Your task to perform on an android device: Add "alienware area 51" to the cart on newegg.com Image 0: 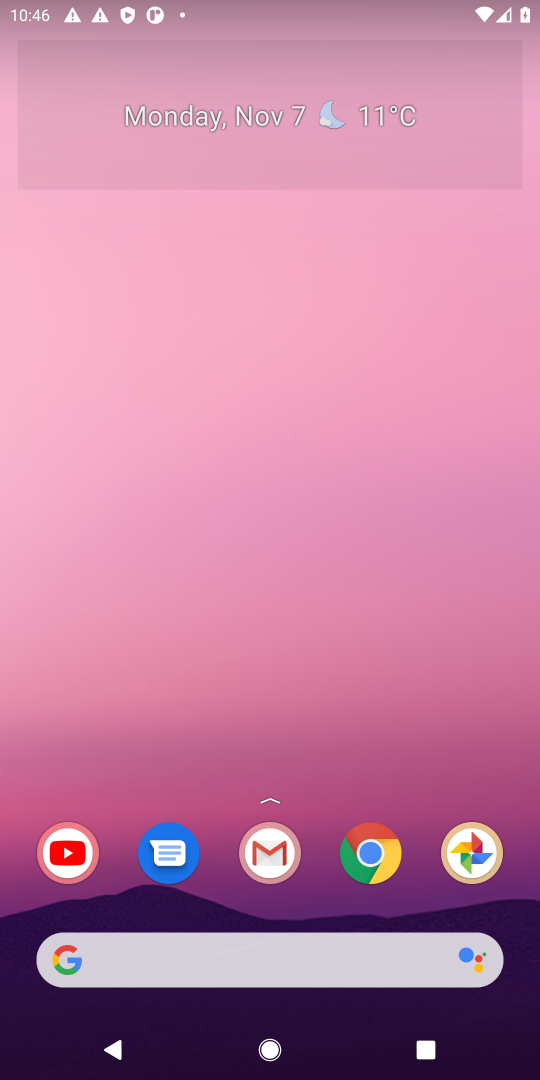
Step 0: click (313, 1033)
Your task to perform on an android device: Add "alienware area 51" to the cart on newegg.com Image 1: 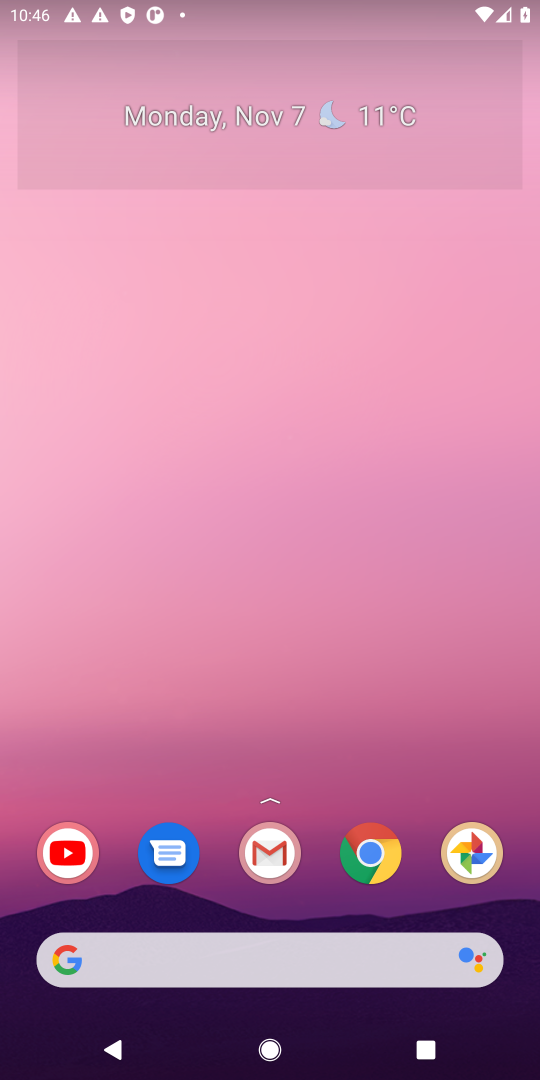
Step 1: click (310, 961)
Your task to perform on an android device: Add "alienware area 51" to the cart on newegg.com Image 2: 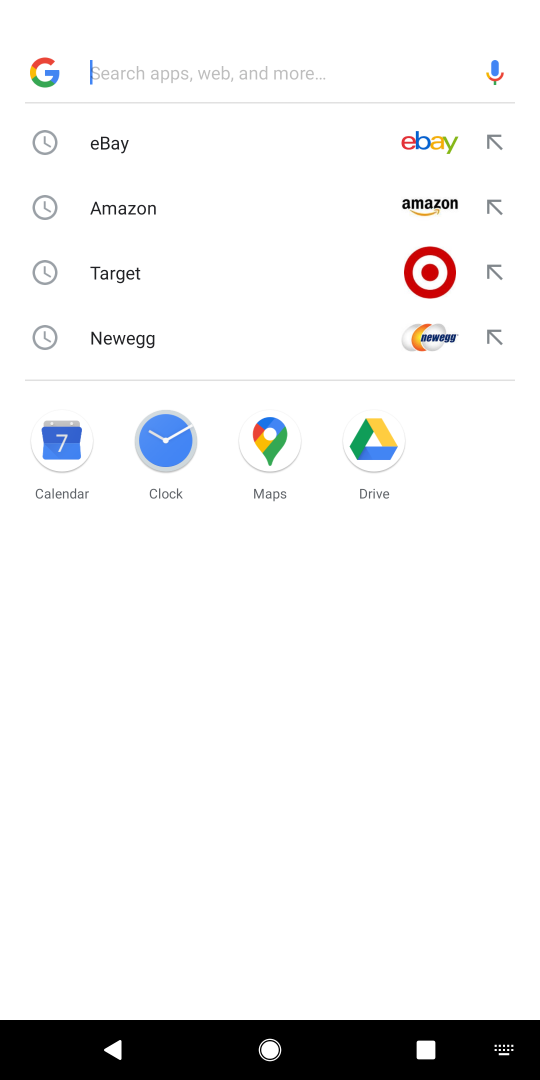
Step 2: click (258, 351)
Your task to perform on an android device: Add "alienware area 51" to the cart on newegg.com Image 3: 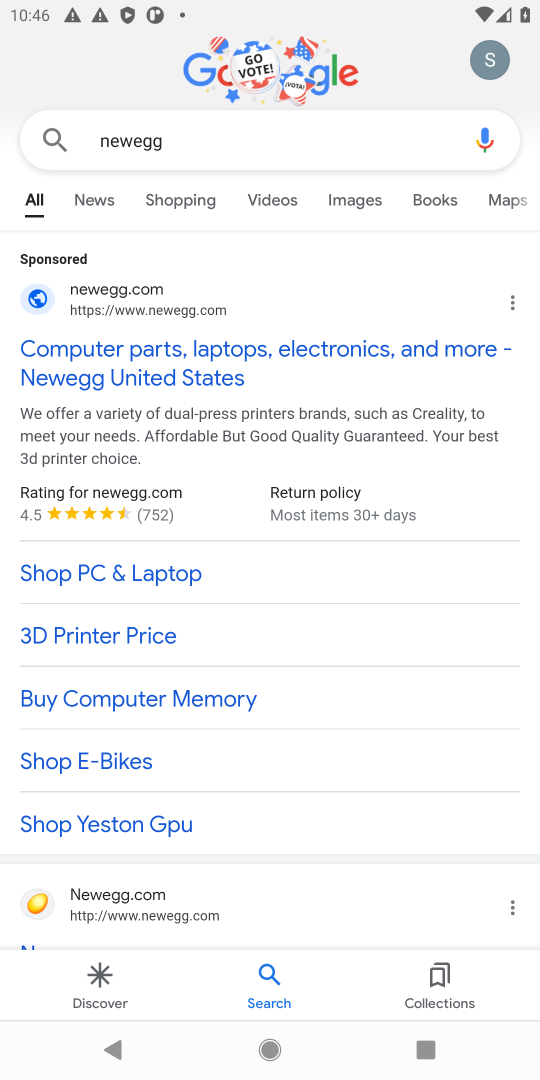
Step 3: click (150, 343)
Your task to perform on an android device: Add "alienware area 51" to the cart on newegg.com Image 4: 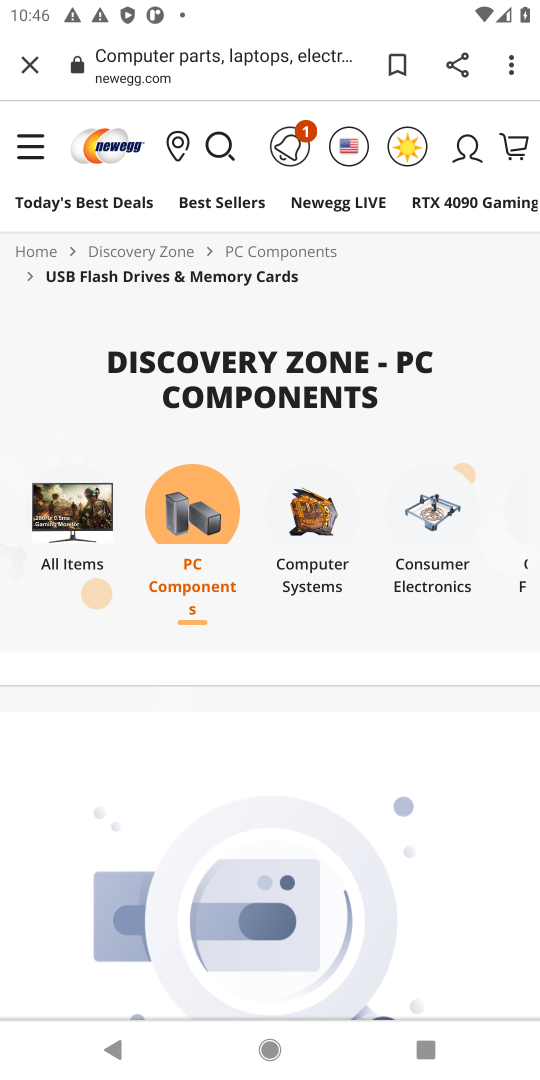
Step 4: click (230, 160)
Your task to perform on an android device: Add "alienware area 51" to the cart on newegg.com Image 5: 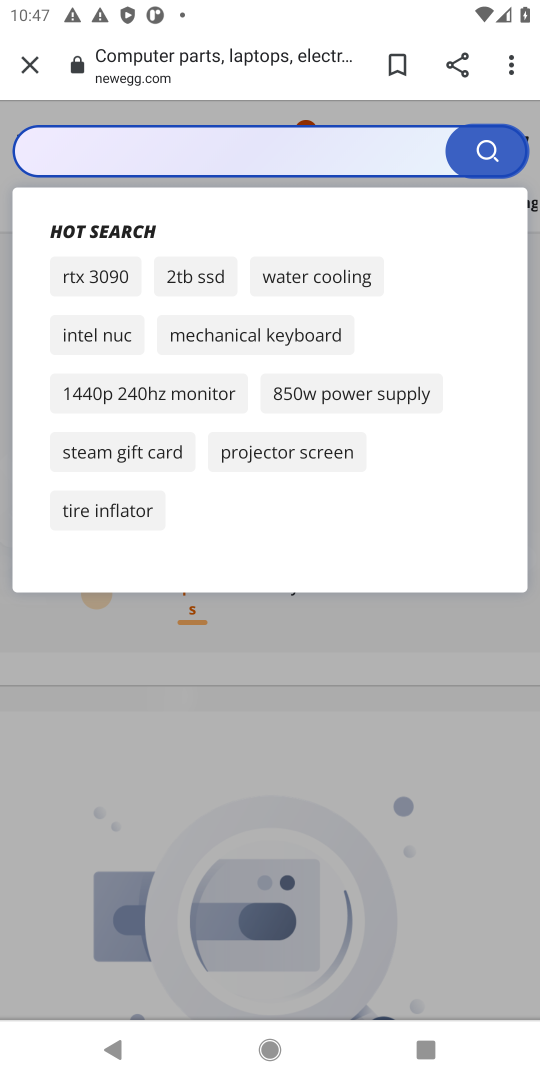
Step 5: type "alieanware"
Your task to perform on an android device: Add "alienware area 51" to the cart on newegg.com Image 6: 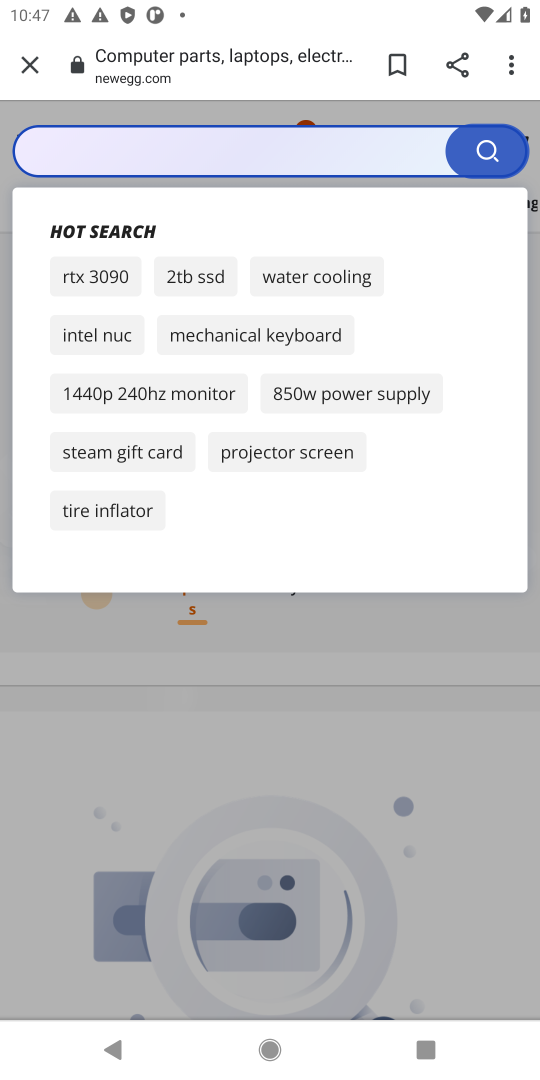
Step 6: click (276, 363)
Your task to perform on an android device: Add "alienware area 51" to the cart on newegg.com Image 7: 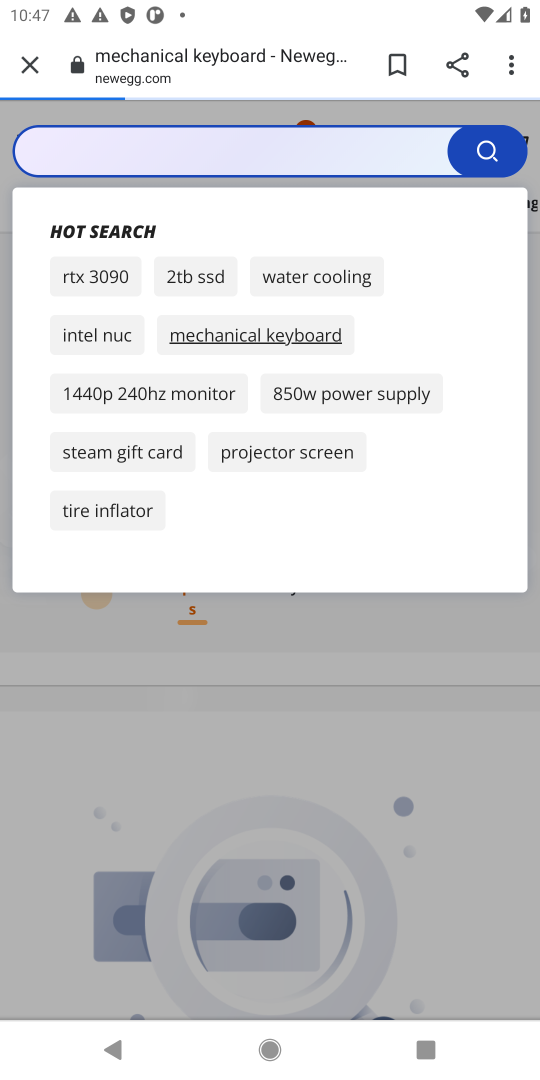
Step 7: task complete